Your task to perform on an android device: toggle wifi Image 0: 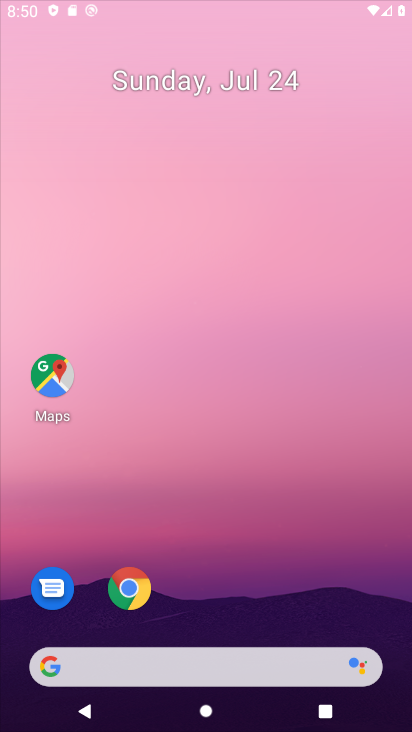
Step 0: drag from (256, 30) to (2, 142)
Your task to perform on an android device: toggle wifi Image 1: 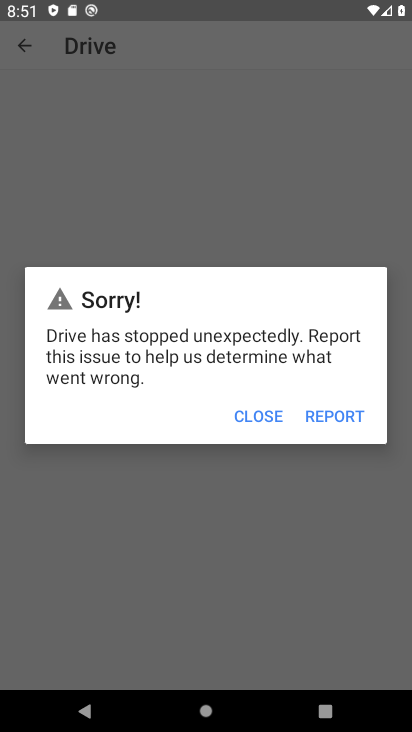
Step 1: press home button
Your task to perform on an android device: toggle wifi Image 2: 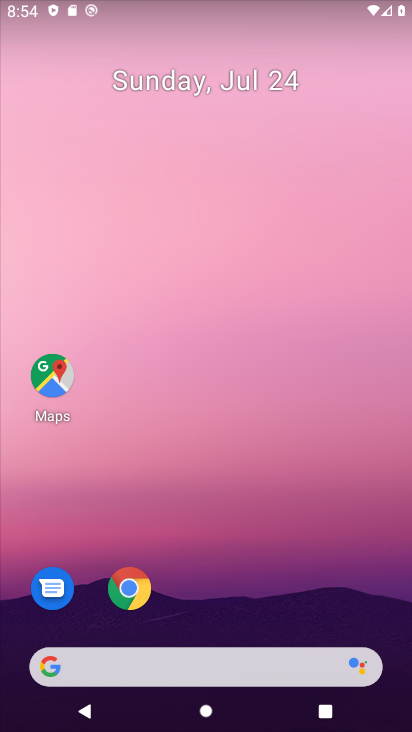
Step 2: drag from (129, 636) to (235, 31)
Your task to perform on an android device: toggle wifi Image 3: 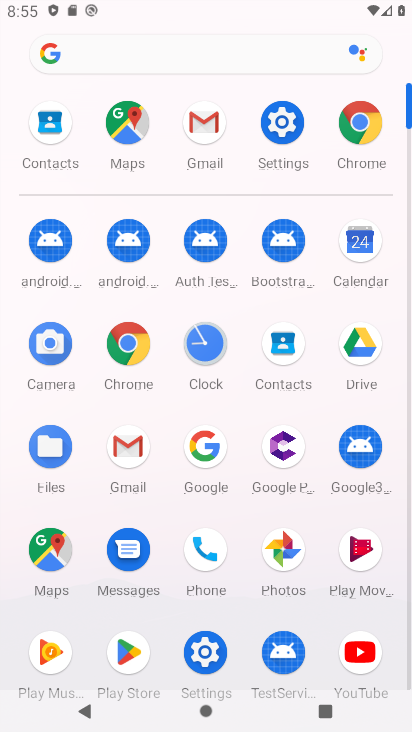
Step 3: click (299, 113)
Your task to perform on an android device: toggle wifi Image 4: 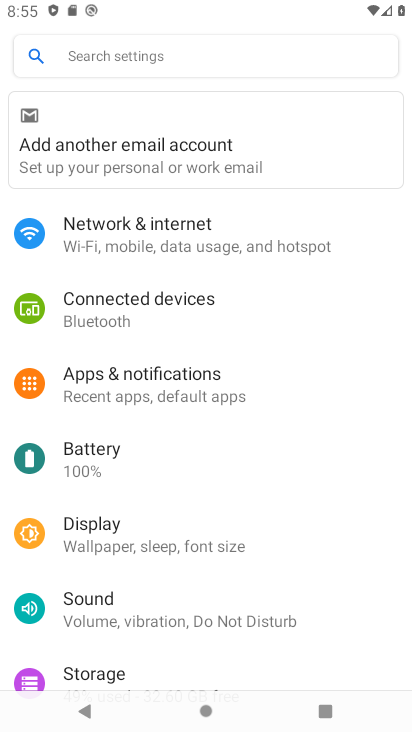
Step 4: click (268, 241)
Your task to perform on an android device: toggle wifi Image 5: 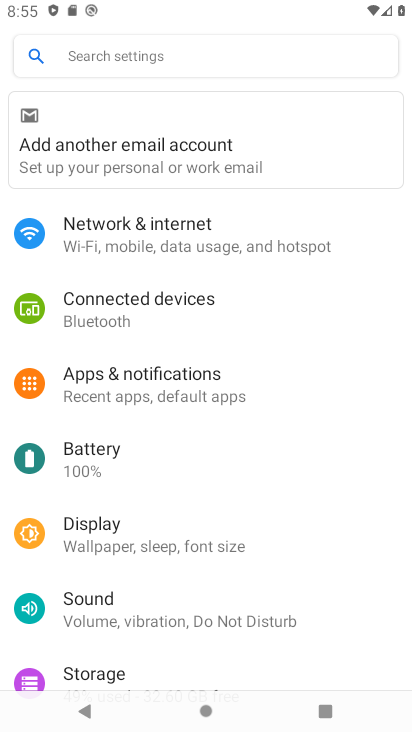
Step 5: click (268, 241)
Your task to perform on an android device: toggle wifi Image 6: 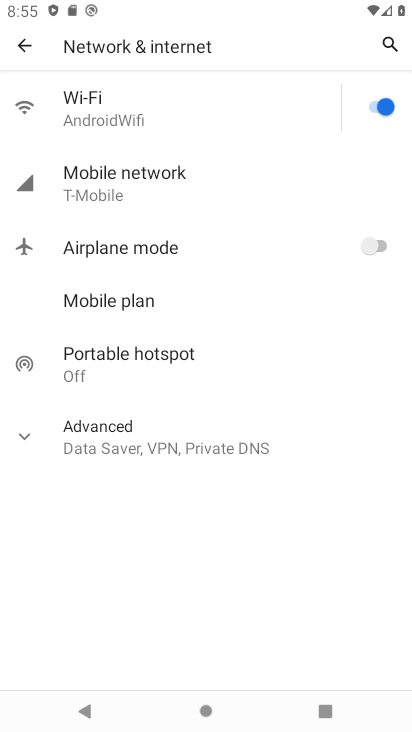
Step 6: click (395, 100)
Your task to perform on an android device: toggle wifi Image 7: 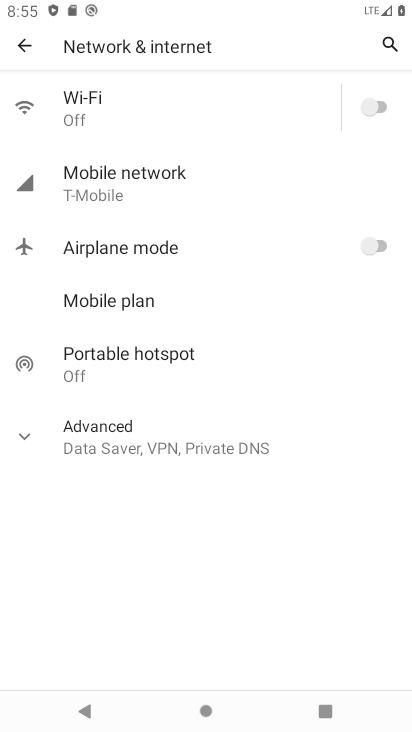
Step 7: task complete